Your task to perform on an android device: turn off priority inbox in the gmail app Image 0: 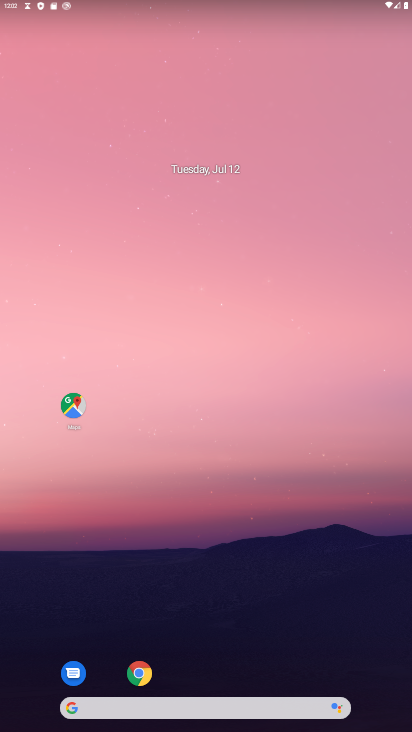
Step 0: press home button
Your task to perform on an android device: turn off priority inbox in the gmail app Image 1: 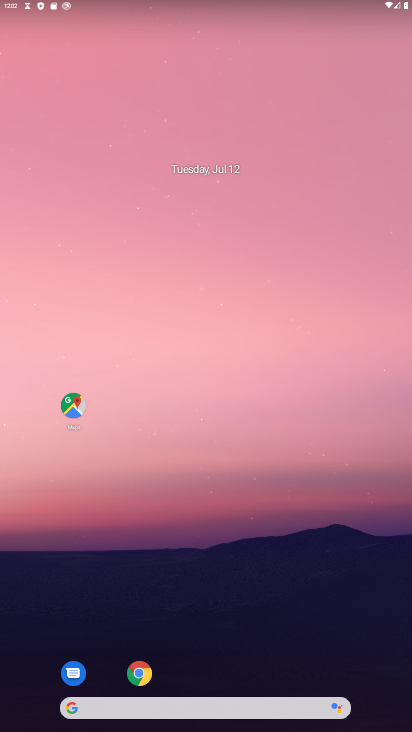
Step 1: drag from (316, 671) to (323, 5)
Your task to perform on an android device: turn off priority inbox in the gmail app Image 2: 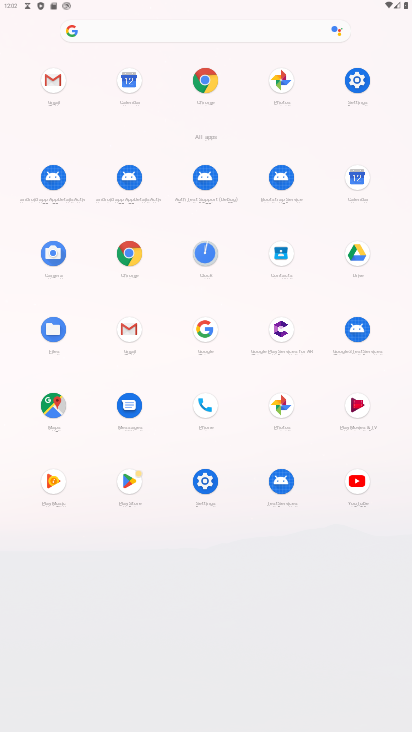
Step 2: click (48, 77)
Your task to perform on an android device: turn off priority inbox in the gmail app Image 3: 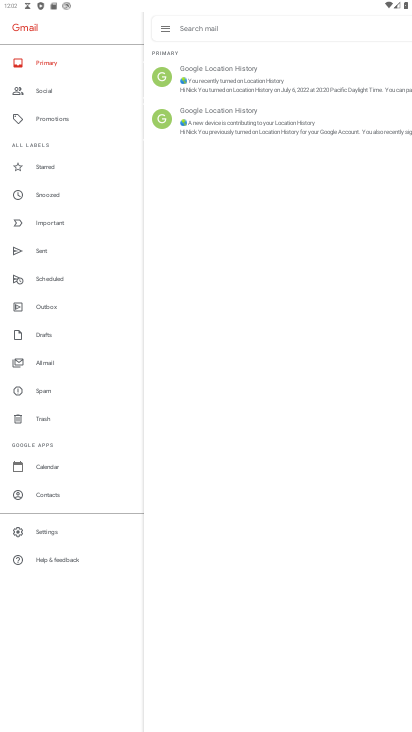
Step 3: click (69, 535)
Your task to perform on an android device: turn off priority inbox in the gmail app Image 4: 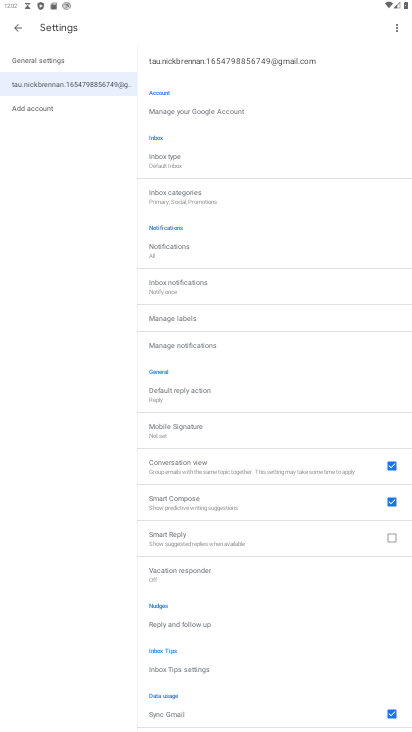
Step 4: click (228, 164)
Your task to perform on an android device: turn off priority inbox in the gmail app Image 5: 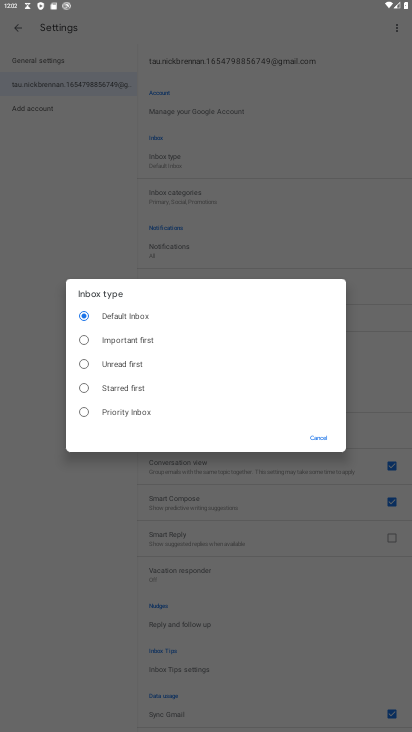
Step 5: task complete